Your task to perform on an android device: How do I get to the nearest Target? Image 0: 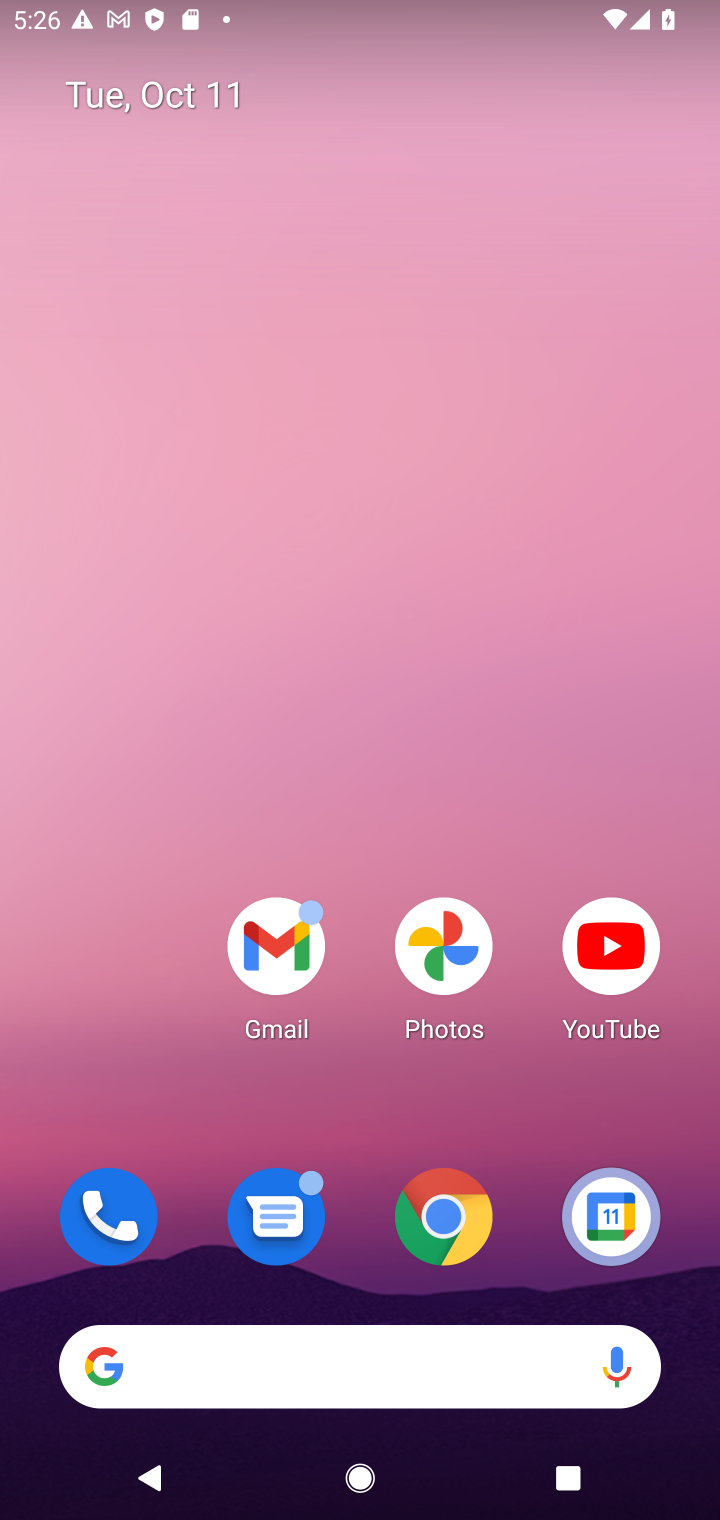
Step 0: click (447, 1215)
Your task to perform on an android device: How do I get to the nearest Target? Image 1: 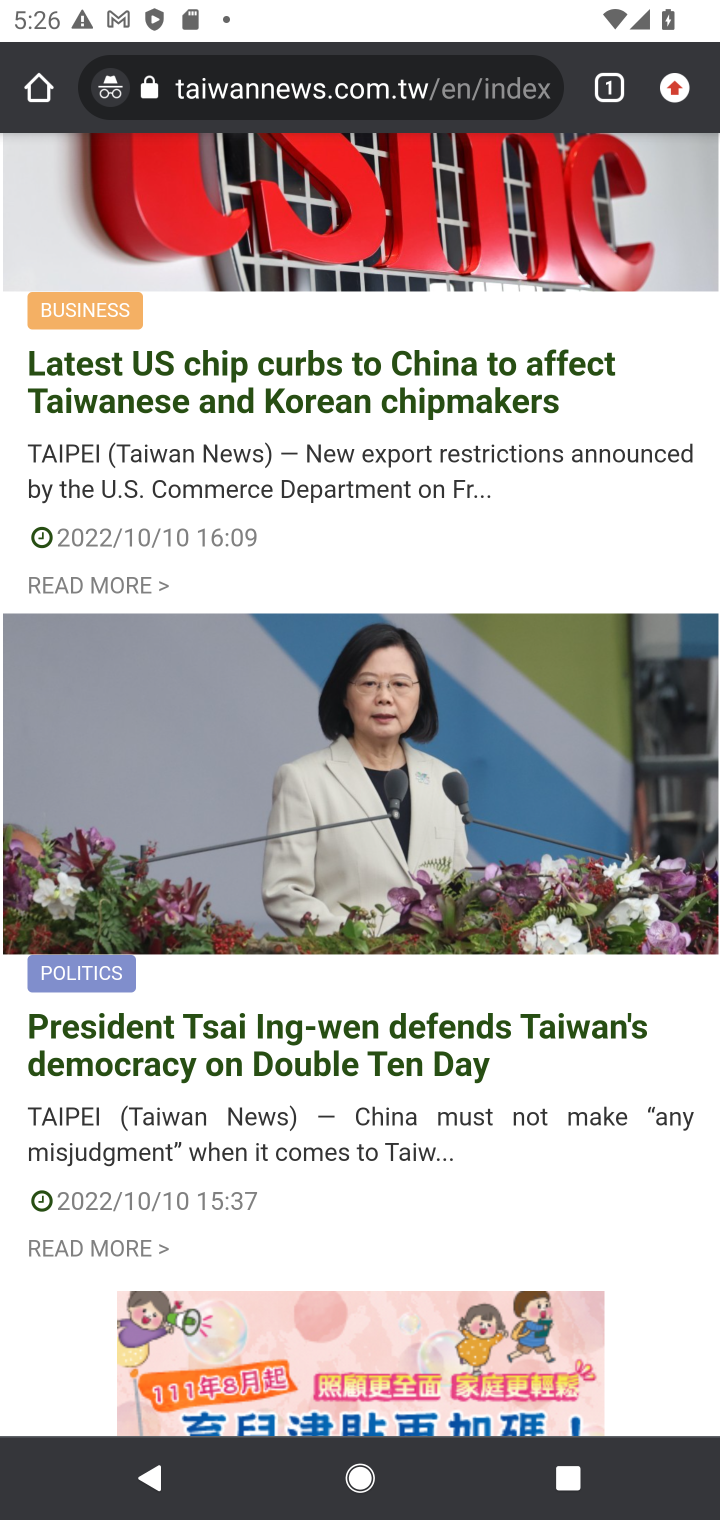
Step 1: click (366, 97)
Your task to perform on an android device: How do I get to the nearest Target? Image 2: 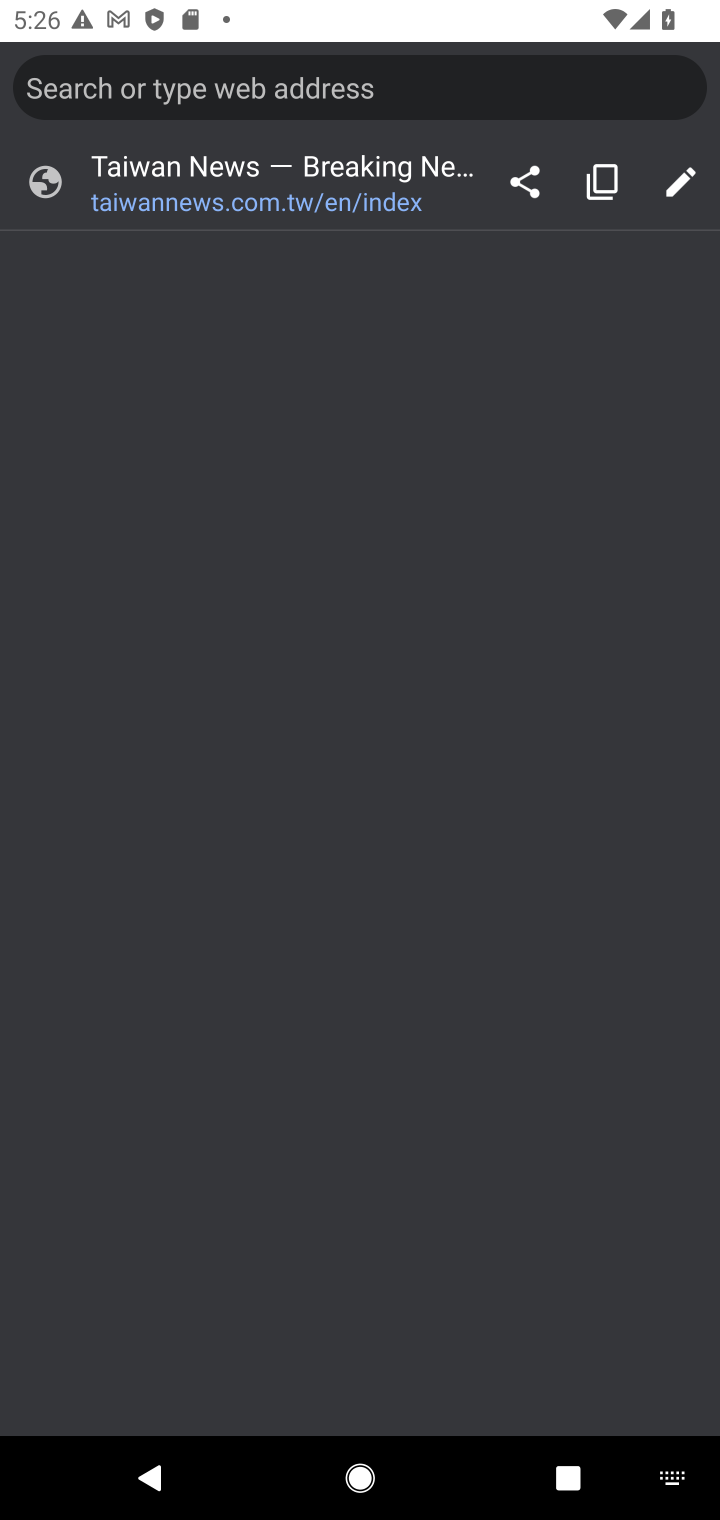
Step 2: type "How do I get to the nearest Target?"
Your task to perform on an android device: How do I get to the nearest Target? Image 3: 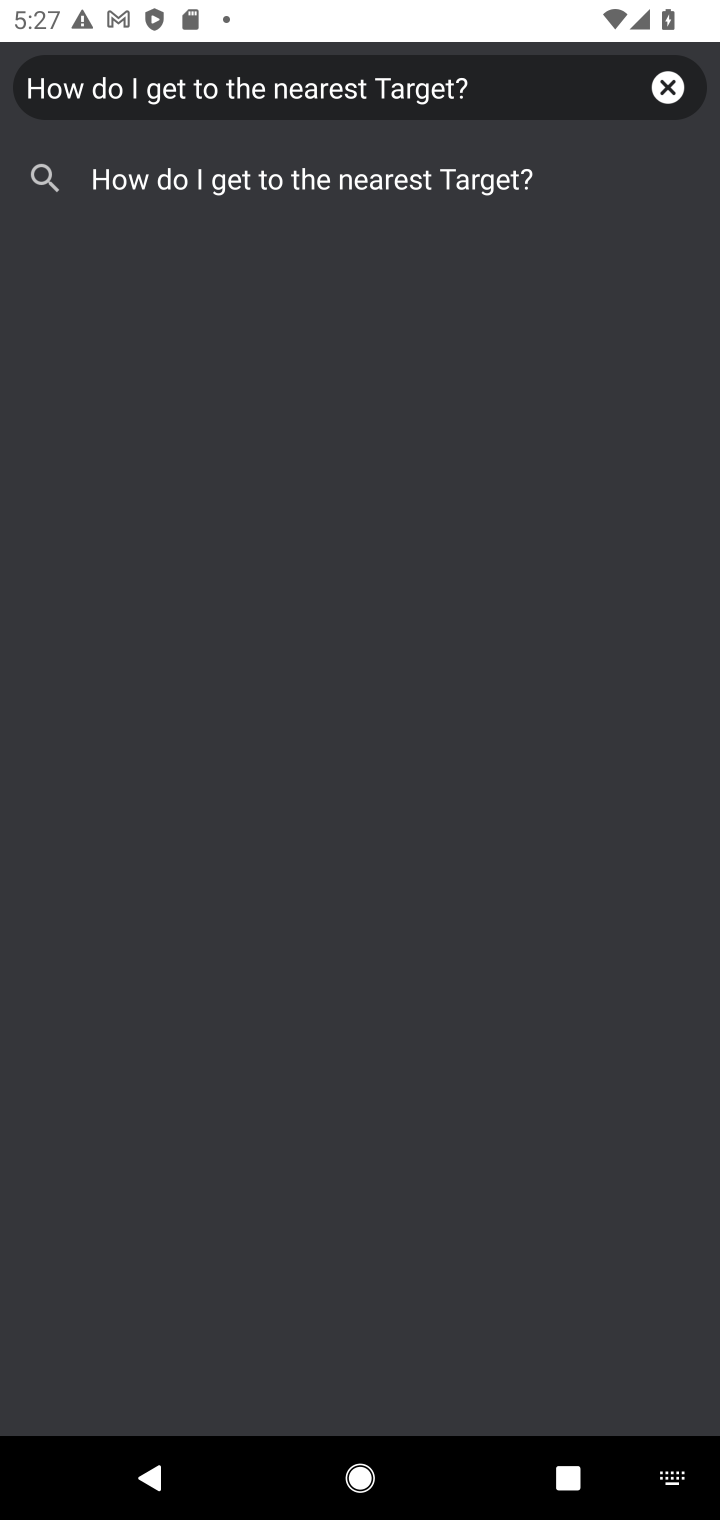
Step 3: click (411, 180)
Your task to perform on an android device: How do I get to the nearest Target? Image 4: 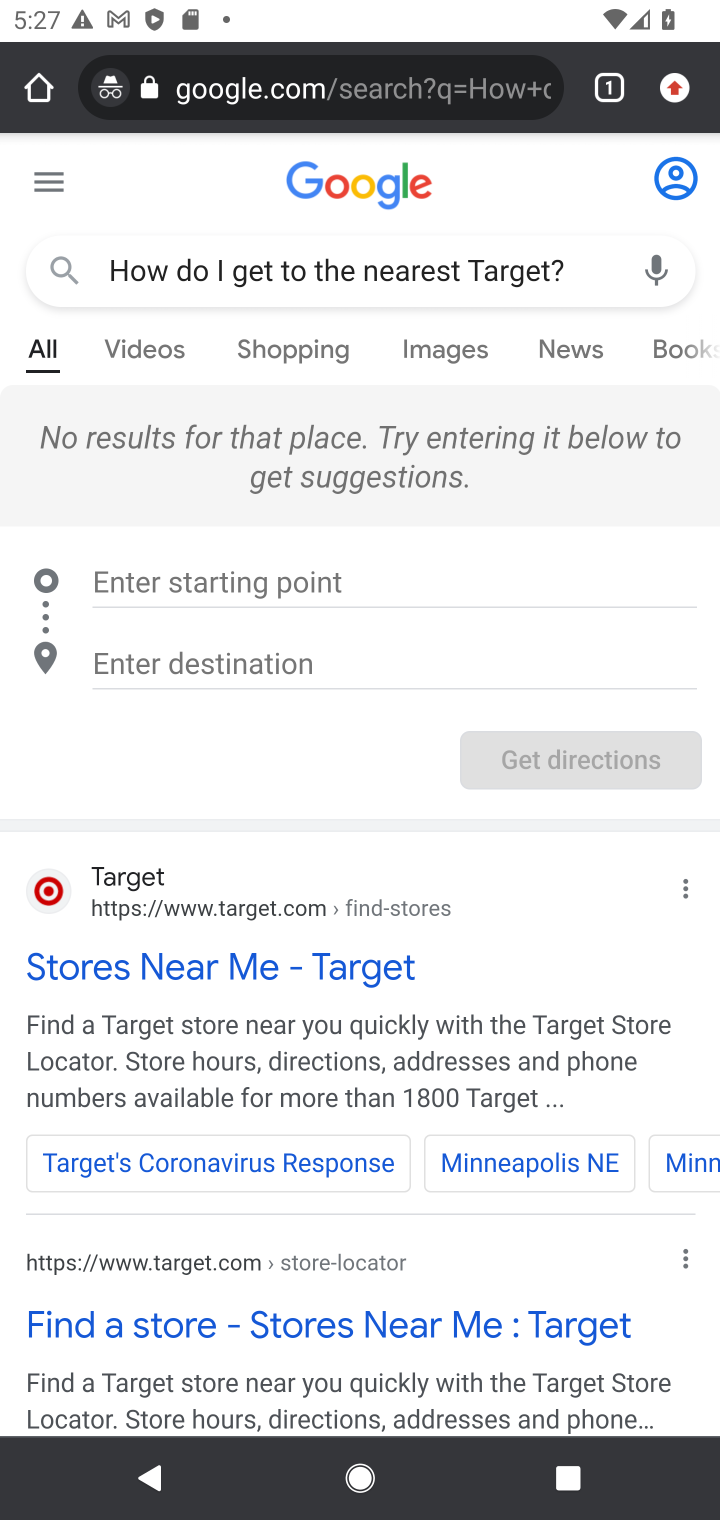
Step 4: click (187, 929)
Your task to perform on an android device: How do I get to the nearest Target? Image 5: 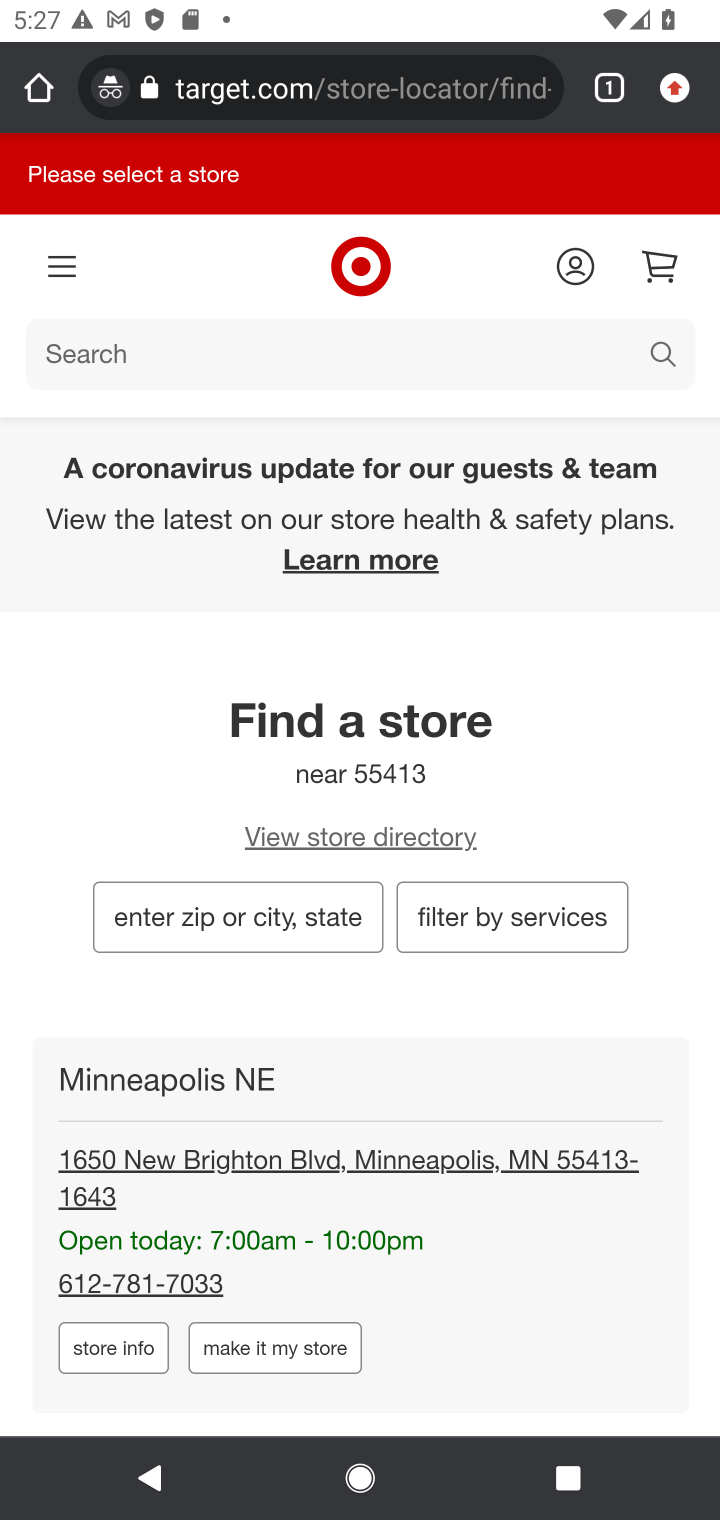
Step 5: task complete